Your task to perform on an android device: turn pop-ups on in chrome Image 0: 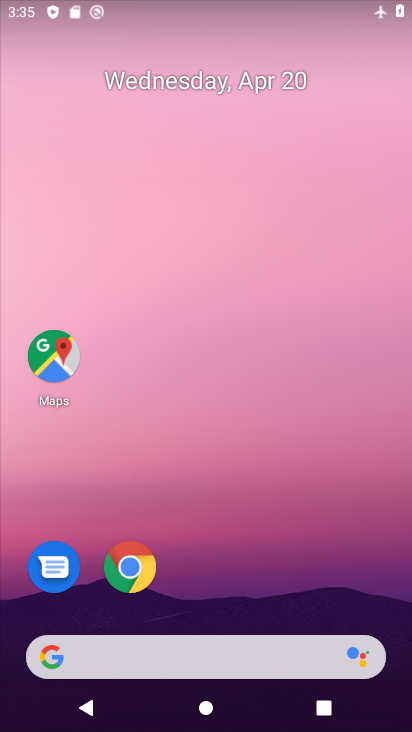
Step 0: drag from (305, 443) to (226, 38)
Your task to perform on an android device: turn pop-ups on in chrome Image 1: 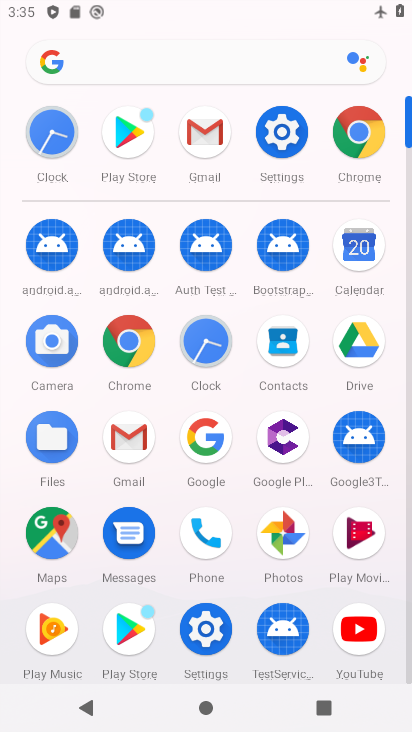
Step 1: click (364, 144)
Your task to perform on an android device: turn pop-ups on in chrome Image 2: 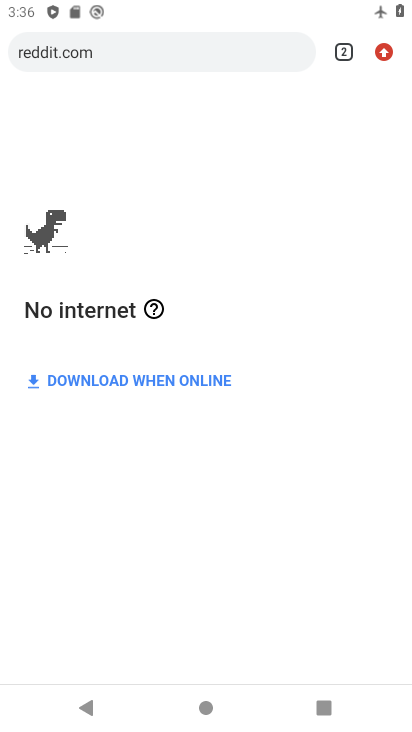
Step 2: drag from (387, 62) to (279, 601)
Your task to perform on an android device: turn pop-ups on in chrome Image 3: 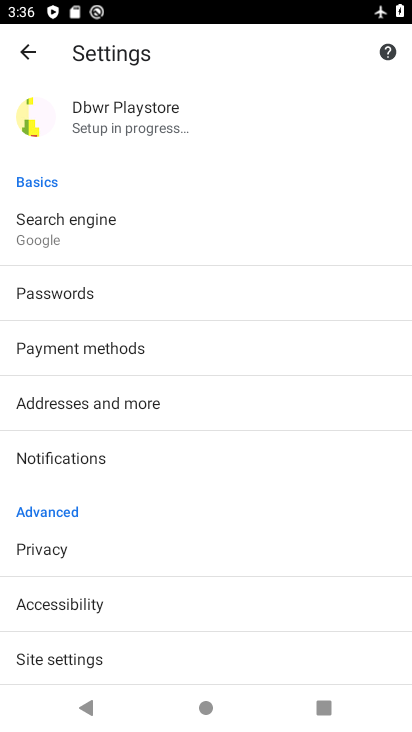
Step 3: drag from (287, 634) to (300, 329)
Your task to perform on an android device: turn pop-ups on in chrome Image 4: 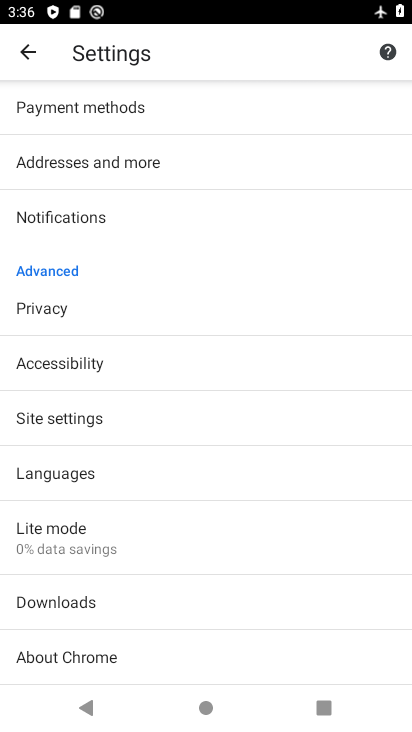
Step 4: click (291, 433)
Your task to perform on an android device: turn pop-ups on in chrome Image 5: 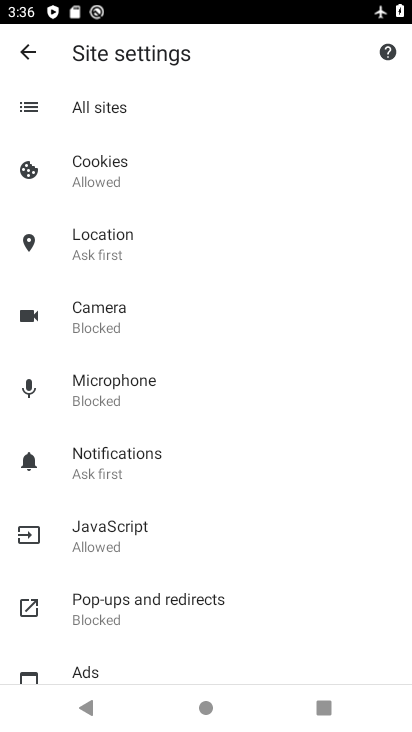
Step 5: click (278, 584)
Your task to perform on an android device: turn pop-ups on in chrome Image 6: 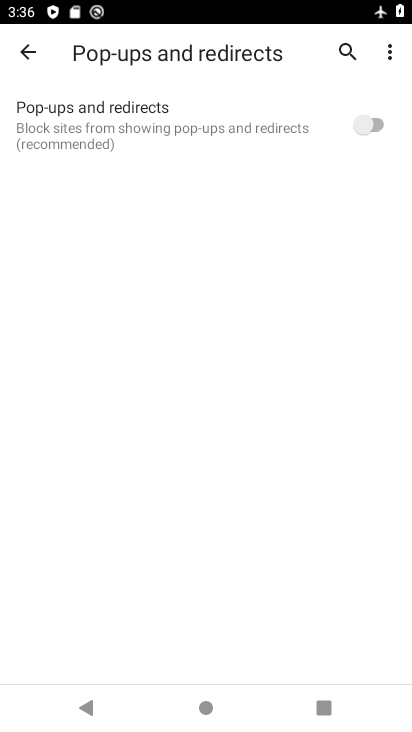
Step 6: click (378, 124)
Your task to perform on an android device: turn pop-ups on in chrome Image 7: 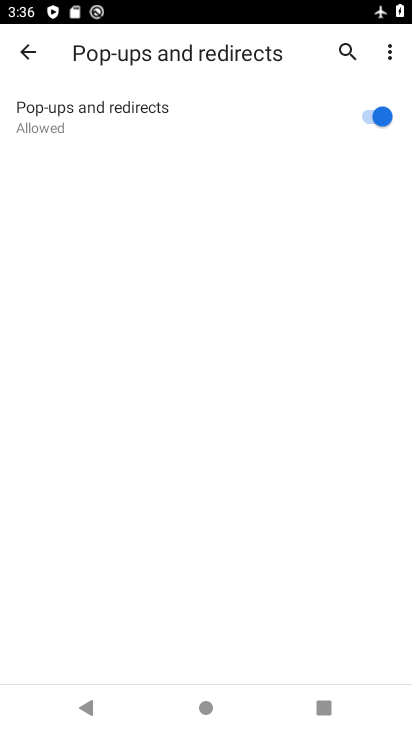
Step 7: task complete